Your task to perform on an android device: change keyboard looks Image 0: 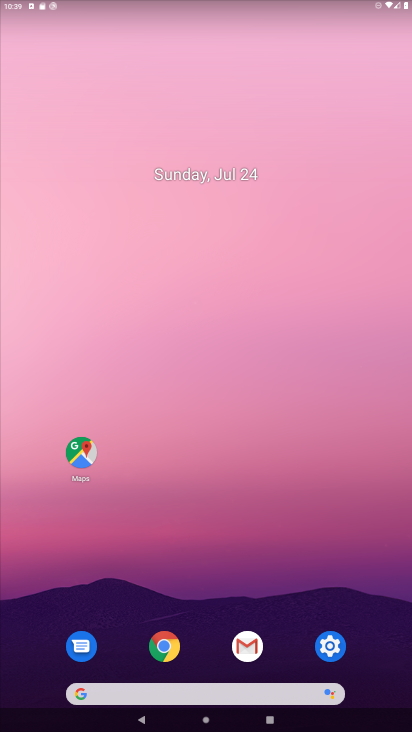
Step 0: click (322, 653)
Your task to perform on an android device: change keyboard looks Image 1: 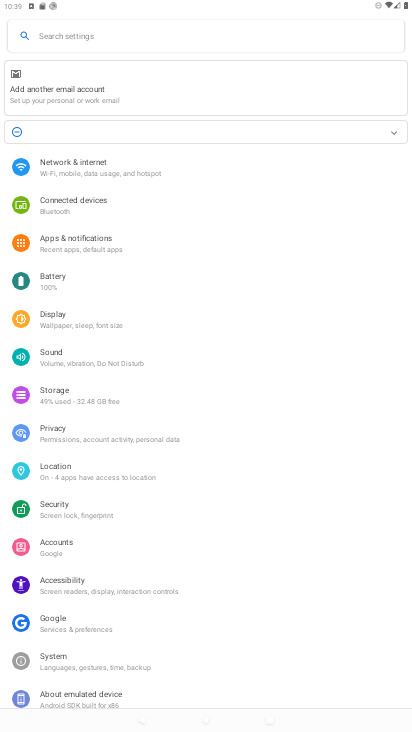
Step 1: click (95, 34)
Your task to perform on an android device: change keyboard looks Image 2: 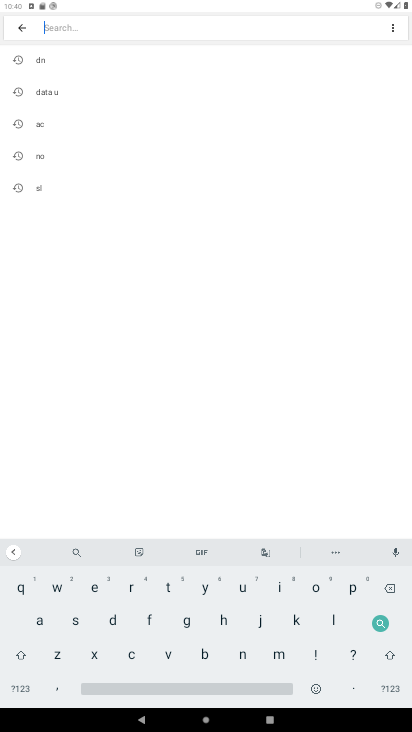
Step 2: click (296, 625)
Your task to perform on an android device: change keyboard looks Image 3: 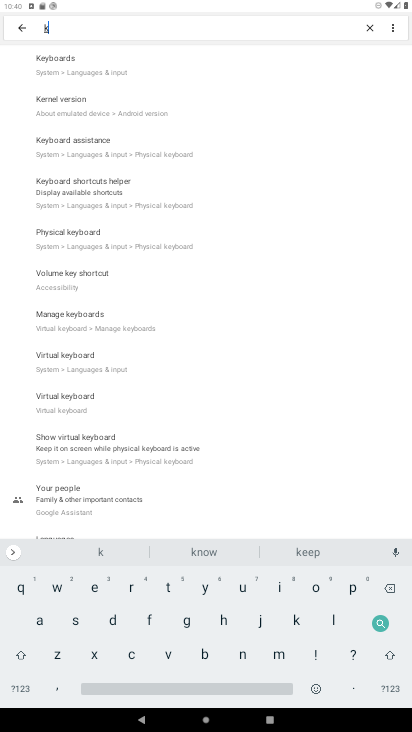
Step 3: click (108, 61)
Your task to perform on an android device: change keyboard looks Image 4: 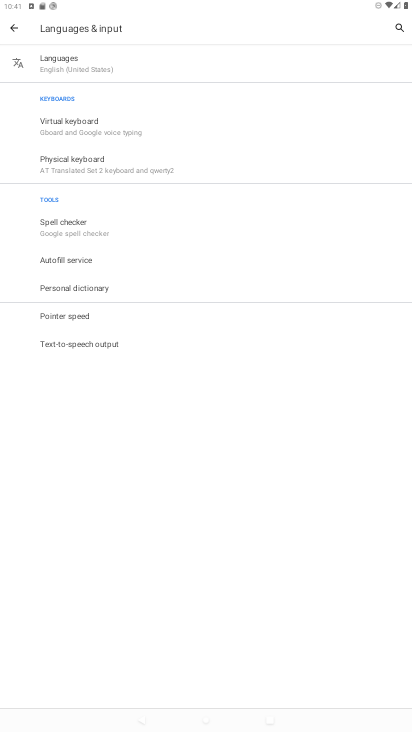
Step 4: task complete